Your task to perform on an android device: manage bookmarks in the chrome app Image 0: 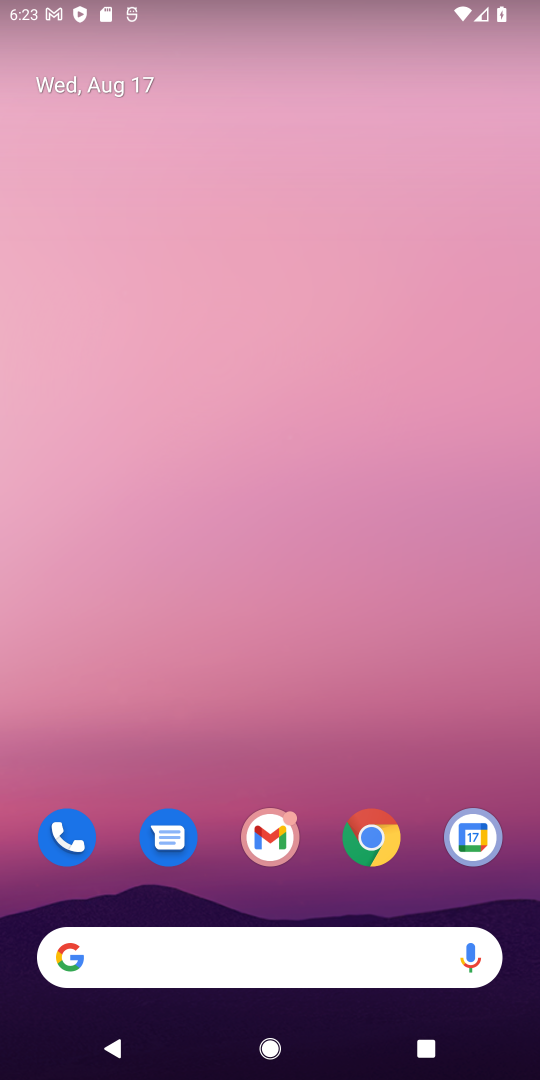
Step 0: click (372, 830)
Your task to perform on an android device: manage bookmarks in the chrome app Image 1: 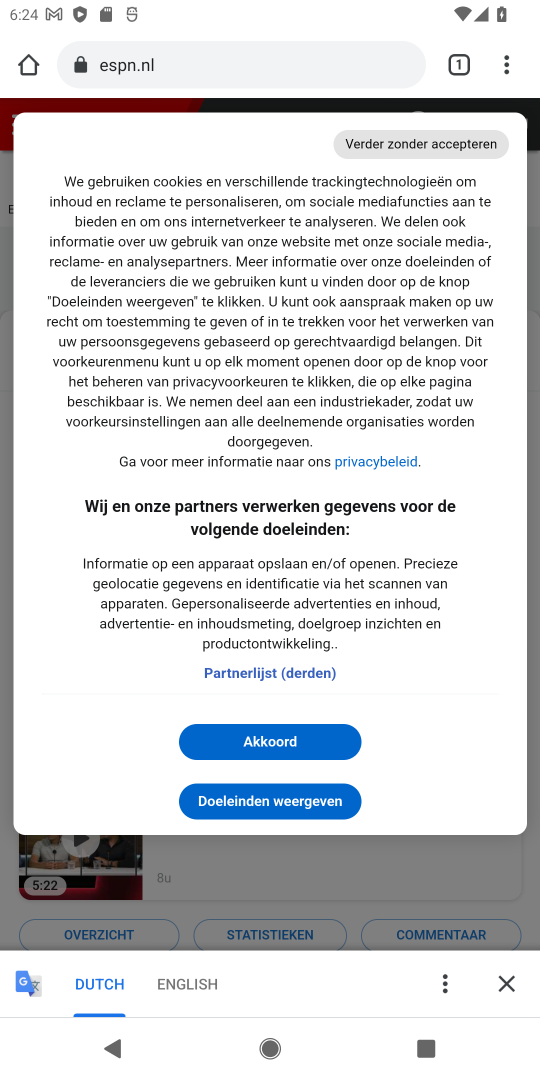
Step 1: drag from (504, 60) to (326, 436)
Your task to perform on an android device: manage bookmarks in the chrome app Image 2: 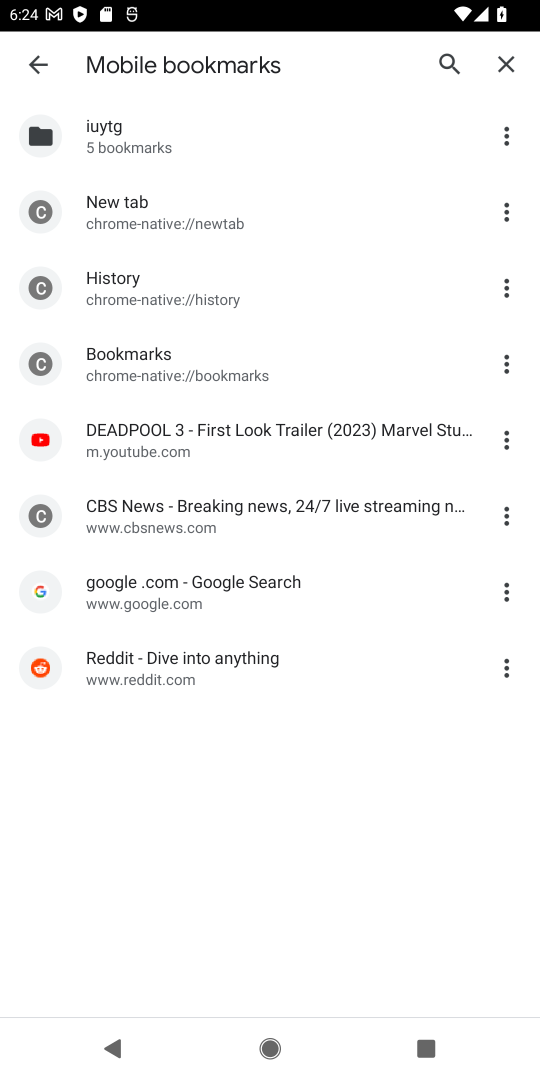
Step 2: click (502, 433)
Your task to perform on an android device: manage bookmarks in the chrome app Image 3: 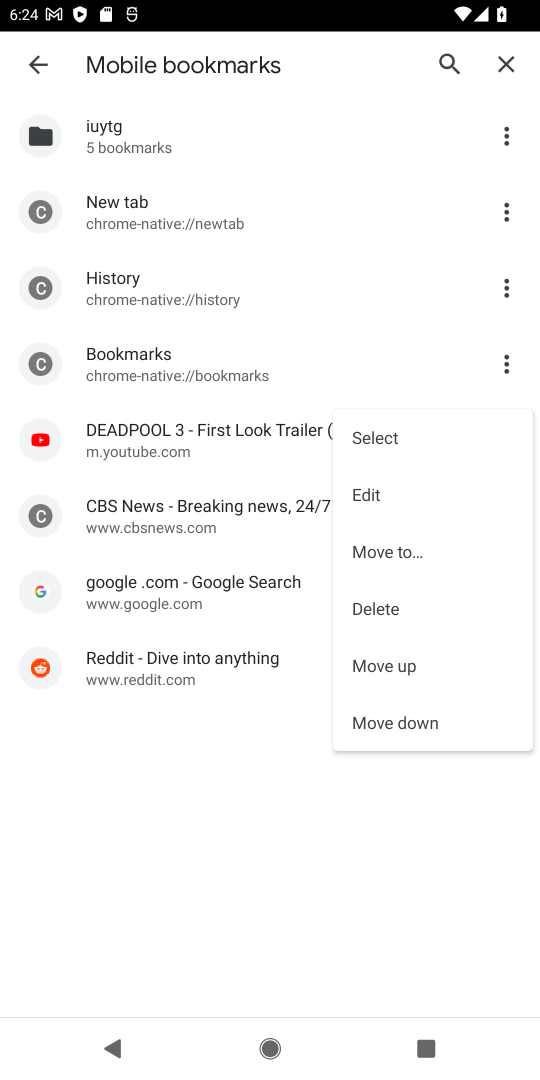
Step 3: click (402, 614)
Your task to perform on an android device: manage bookmarks in the chrome app Image 4: 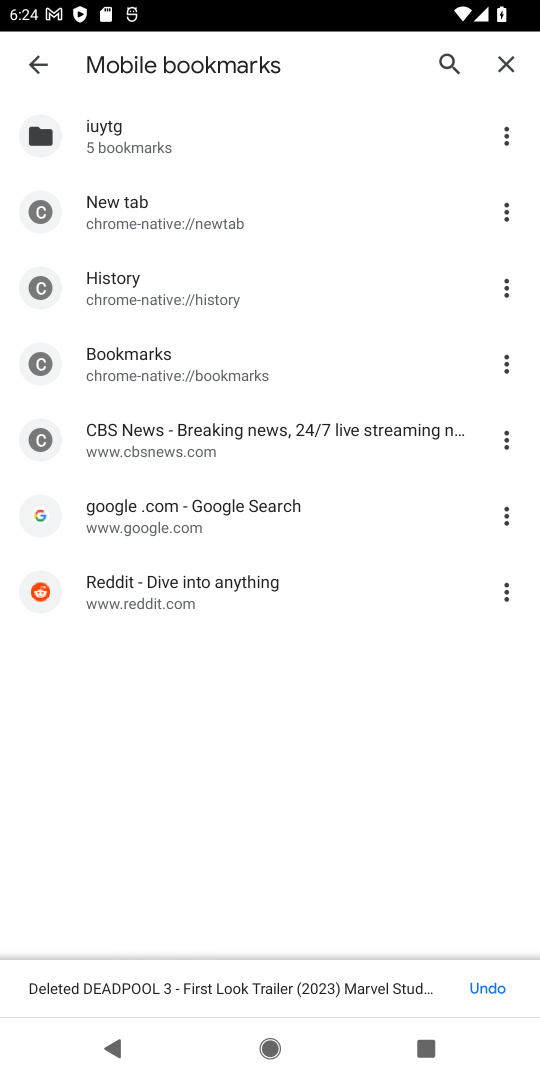
Step 4: task complete